Your task to perform on an android device: Show me popular games on the Play Store Image 0: 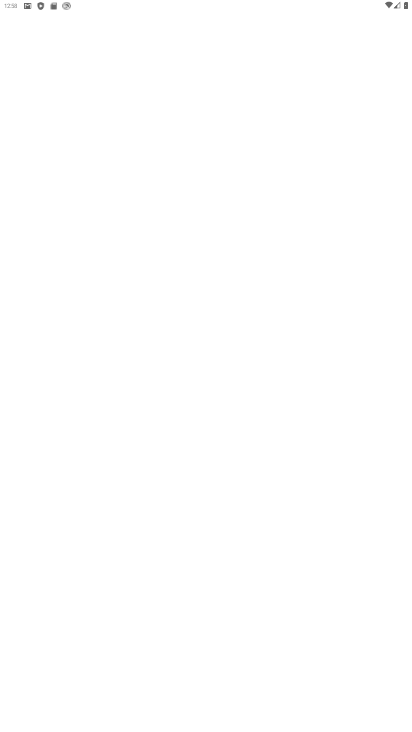
Step 0: drag from (270, 190) to (277, 84)
Your task to perform on an android device: Show me popular games on the Play Store Image 1: 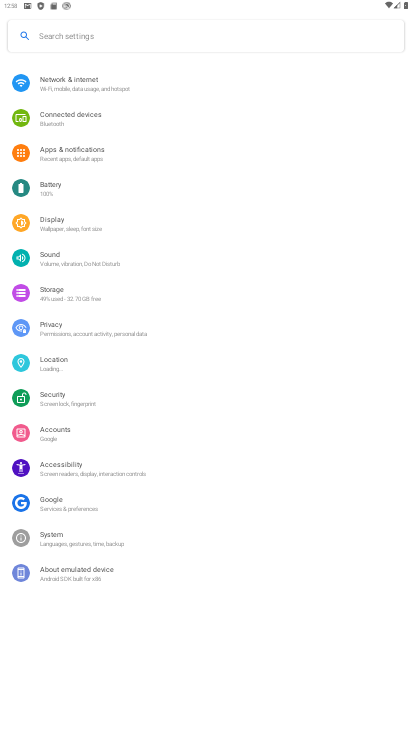
Step 1: press home button
Your task to perform on an android device: Show me popular games on the Play Store Image 2: 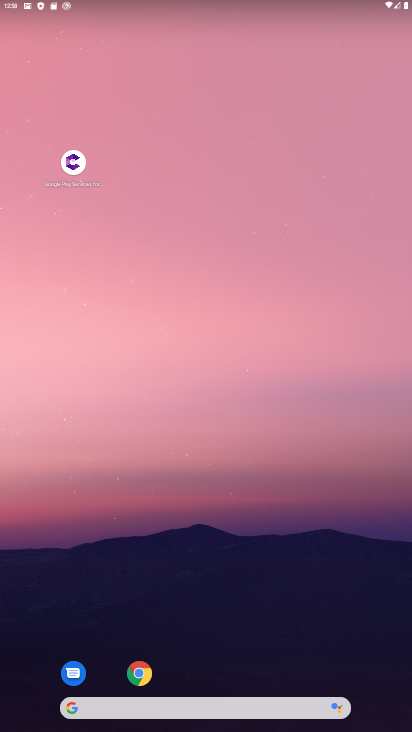
Step 2: drag from (275, 636) to (158, 4)
Your task to perform on an android device: Show me popular games on the Play Store Image 3: 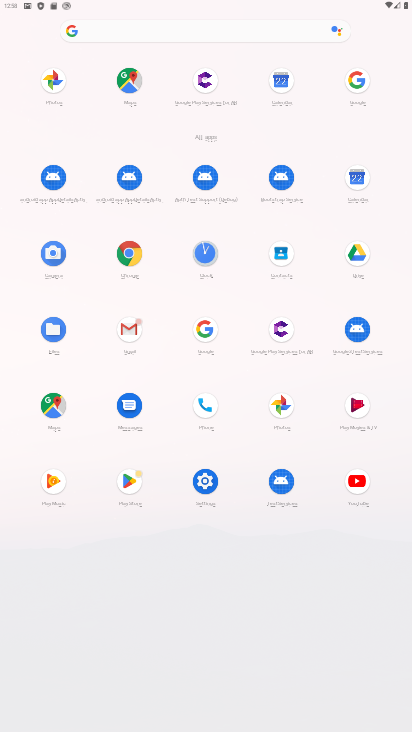
Step 3: click (125, 478)
Your task to perform on an android device: Show me popular games on the Play Store Image 4: 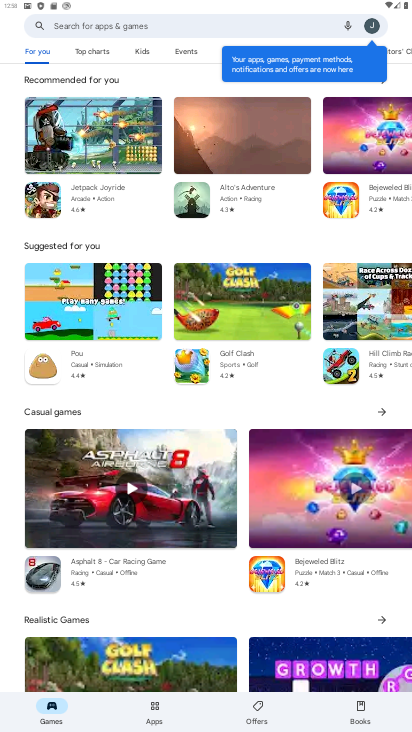
Step 4: click (103, 51)
Your task to perform on an android device: Show me popular games on the Play Store Image 5: 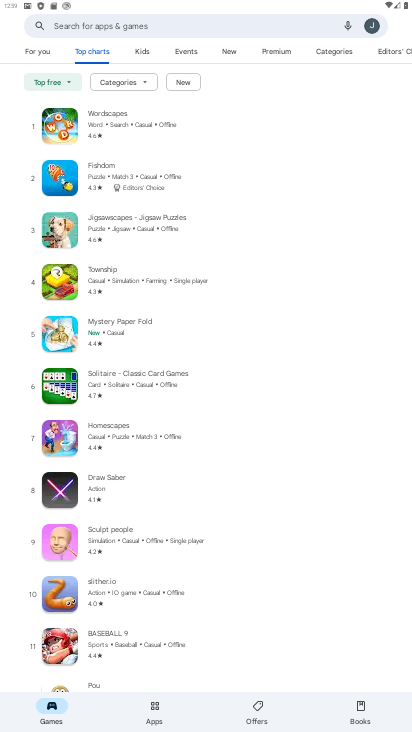
Step 5: task complete